Your task to perform on an android device: turn off translation in the chrome app Image 0: 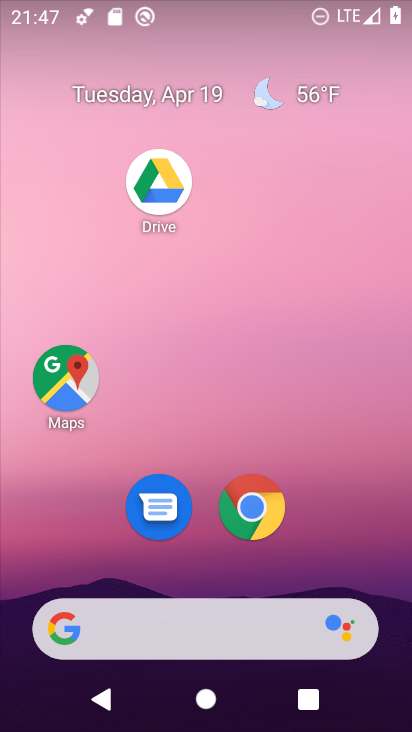
Step 0: click (252, 510)
Your task to perform on an android device: turn off translation in the chrome app Image 1: 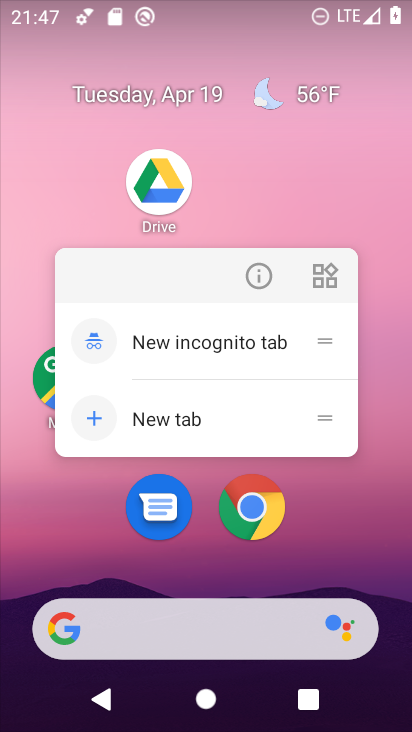
Step 1: drag from (336, 477) to (367, 105)
Your task to perform on an android device: turn off translation in the chrome app Image 2: 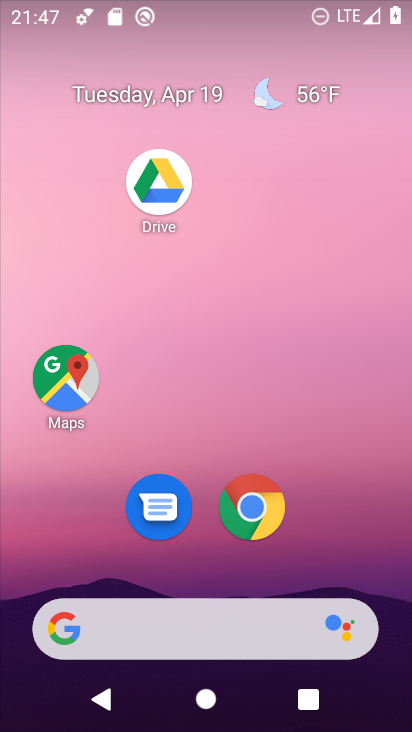
Step 2: drag from (307, 535) to (341, 112)
Your task to perform on an android device: turn off translation in the chrome app Image 3: 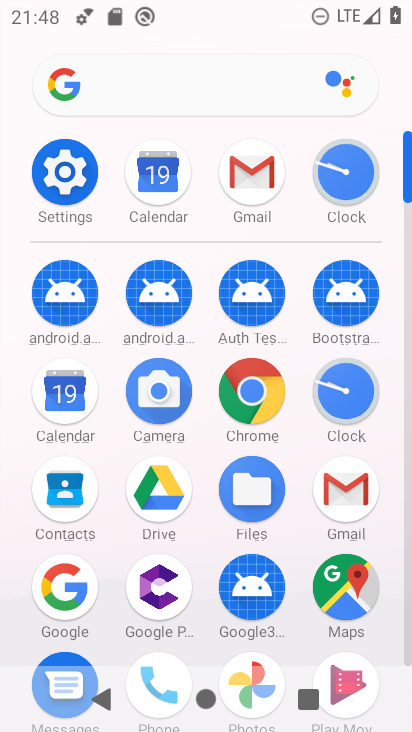
Step 3: click (253, 394)
Your task to perform on an android device: turn off translation in the chrome app Image 4: 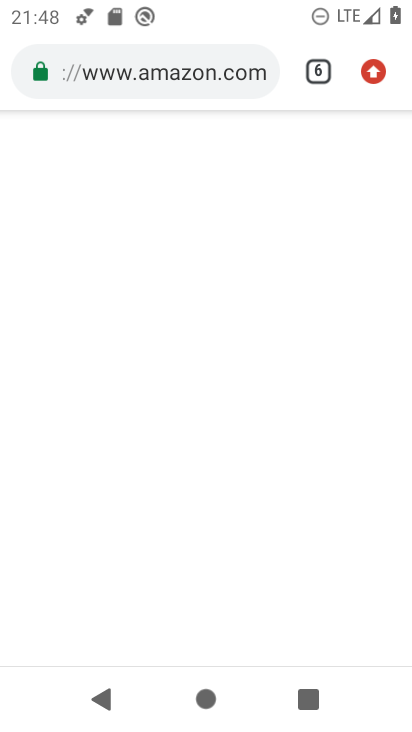
Step 4: click (373, 72)
Your task to perform on an android device: turn off translation in the chrome app Image 5: 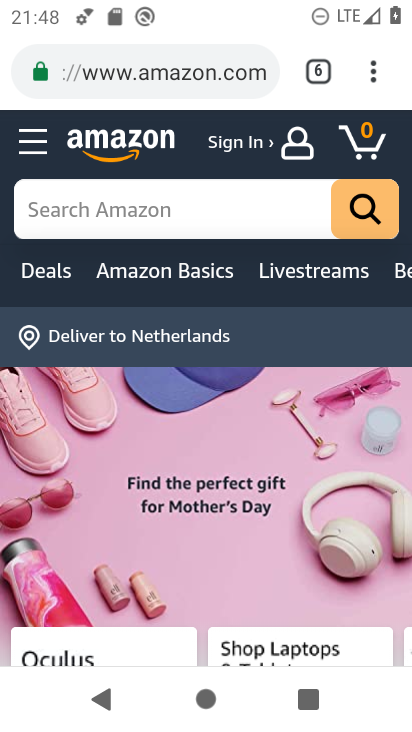
Step 5: drag from (373, 69) to (266, 513)
Your task to perform on an android device: turn off translation in the chrome app Image 6: 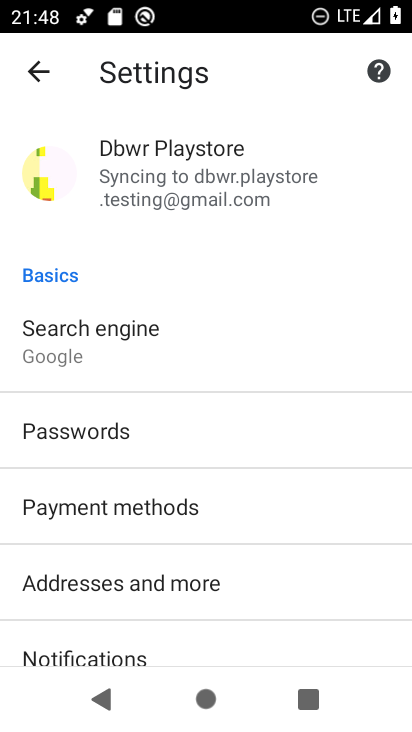
Step 6: drag from (259, 586) to (270, 134)
Your task to perform on an android device: turn off translation in the chrome app Image 7: 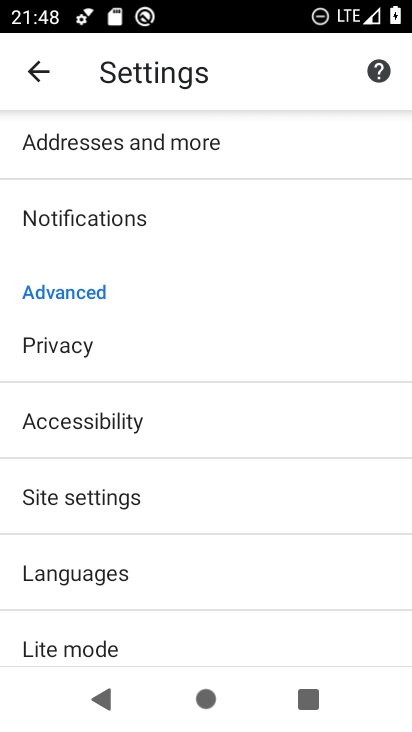
Step 7: click (208, 580)
Your task to perform on an android device: turn off translation in the chrome app Image 8: 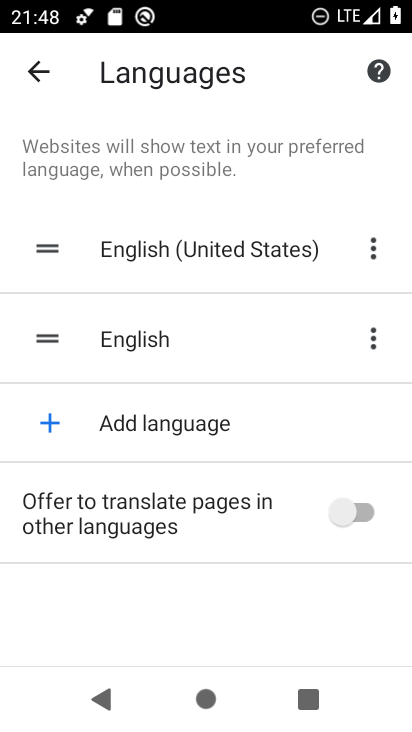
Step 8: task complete